Your task to perform on an android device: What's the weather? Image 0: 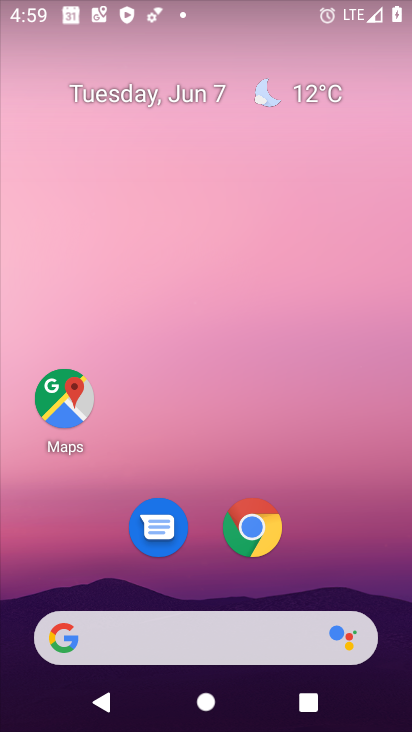
Step 0: drag from (325, 573) to (230, 36)
Your task to perform on an android device: What's the weather? Image 1: 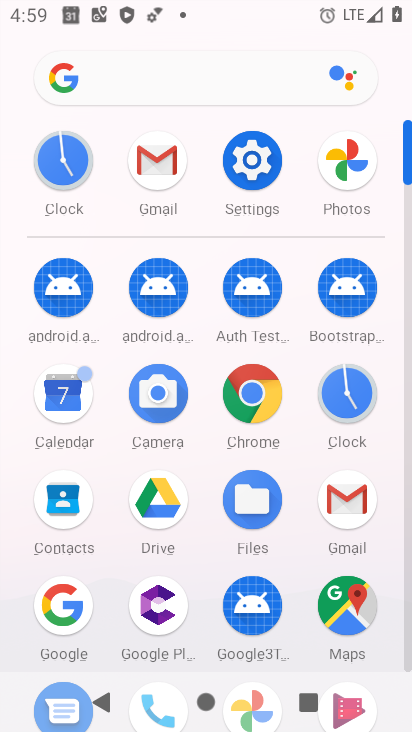
Step 1: click (58, 604)
Your task to perform on an android device: What's the weather? Image 2: 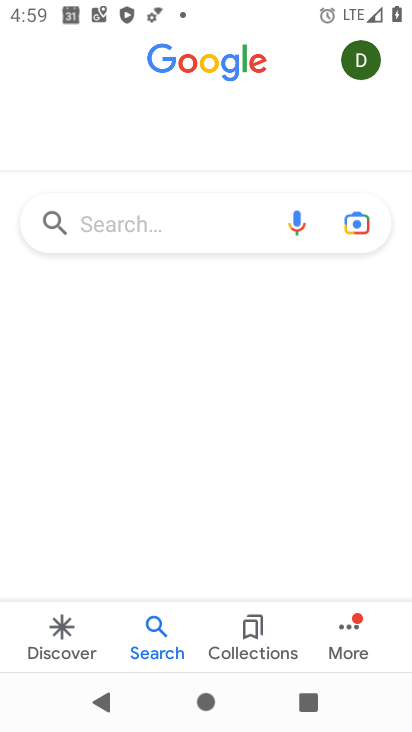
Step 2: click (149, 221)
Your task to perform on an android device: What's the weather? Image 3: 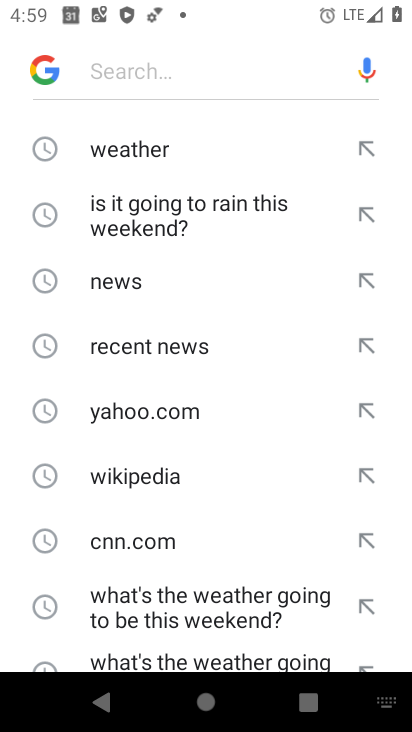
Step 3: click (142, 152)
Your task to perform on an android device: What's the weather? Image 4: 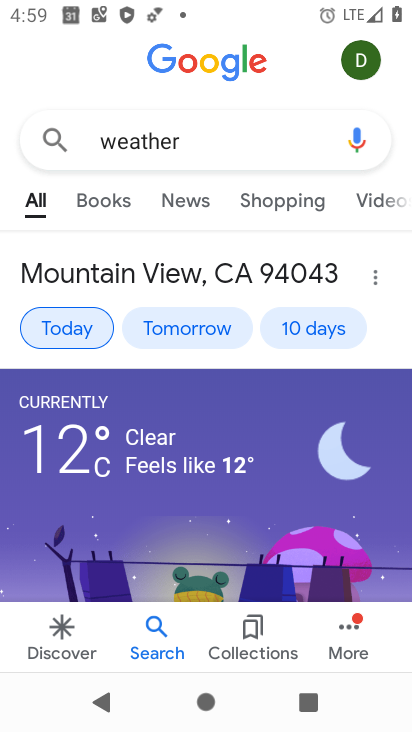
Step 4: task complete